Your task to perform on an android device: install app "DoorDash - Food Delivery" Image 0: 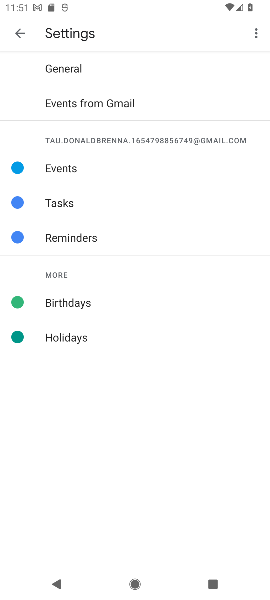
Step 0: press home button
Your task to perform on an android device: install app "DoorDash - Food Delivery" Image 1: 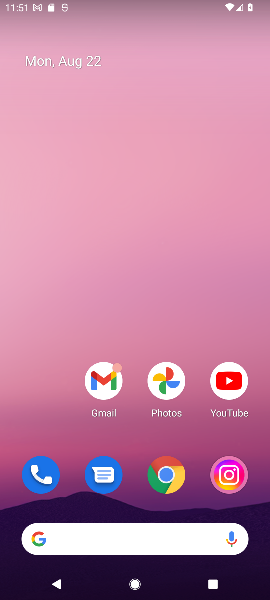
Step 1: drag from (113, 440) to (137, 19)
Your task to perform on an android device: install app "DoorDash - Food Delivery" Image 2: 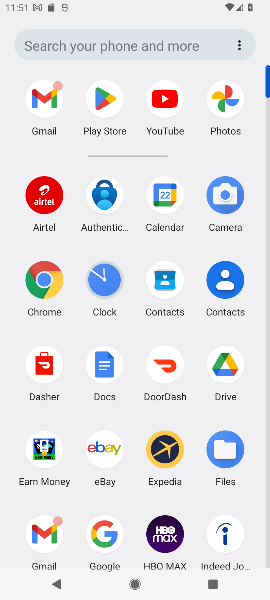
Step 2: click (106, 102)
Your task to perform on an android device: install app "DoorDash - Food Delivery" Image 3: 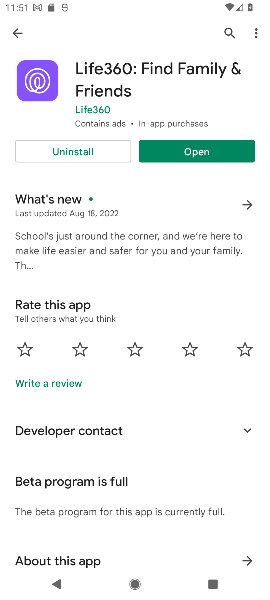
Step 3: click (19, 33)
Your task to perform on an android device: install app "DoorDash - Food Delivery" Image 4: 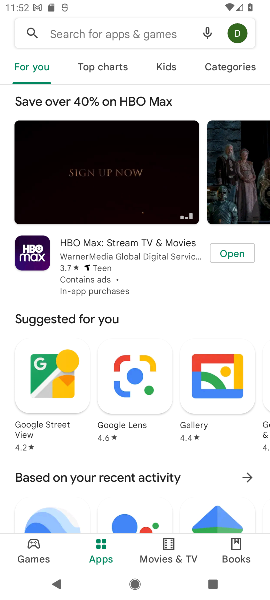
Step 4: click (88, 26)
Your task to perform on an android device: install app "DoorDash - Food Delivery" Image 5: 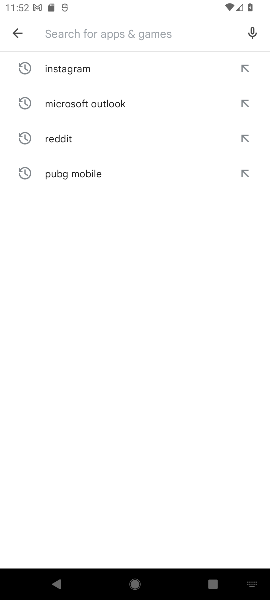
Step 5: type "DoorDash - Food Delivery"
Your task to perform on an android device: install app "DoorDash - Food Delivery" Image 6: 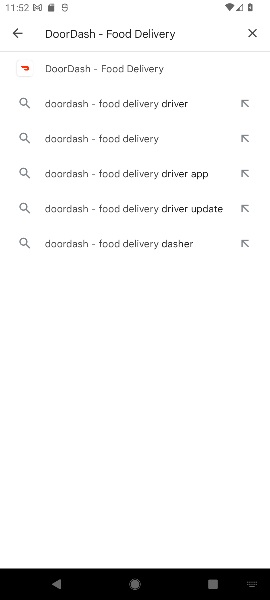
Step 6: click (100, 62)
Your task to perform on an android device: install app "DoorDash - Food Delivery" Image 7: 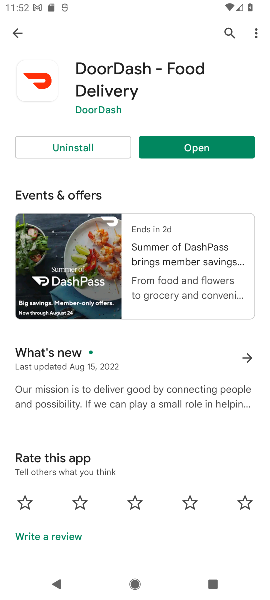
Step 7: click (205, 153)
Your task to perform on an android device: install app "DoorDash - Food Delivery" Image 8: 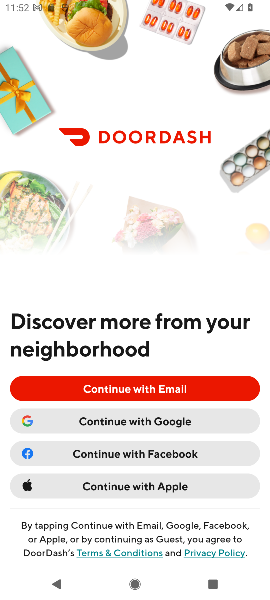
Step 8: task complete